Your task to perform on an android device: Open wifi settings Image 0: 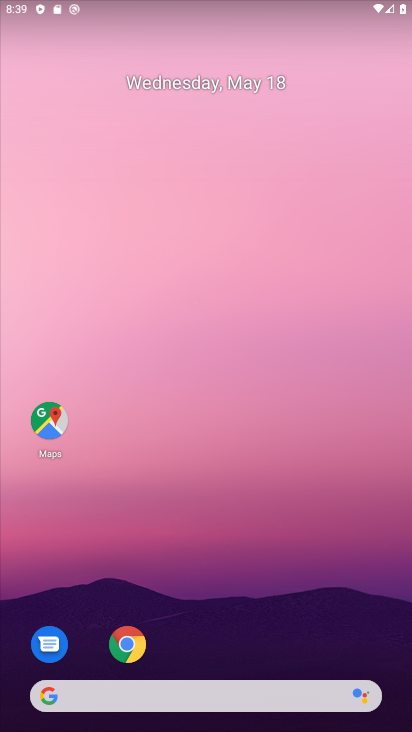
Step 0: drag from (205, 577) to (264, 25)
Your task to perform on an android device: Open wifi settings Image 1: 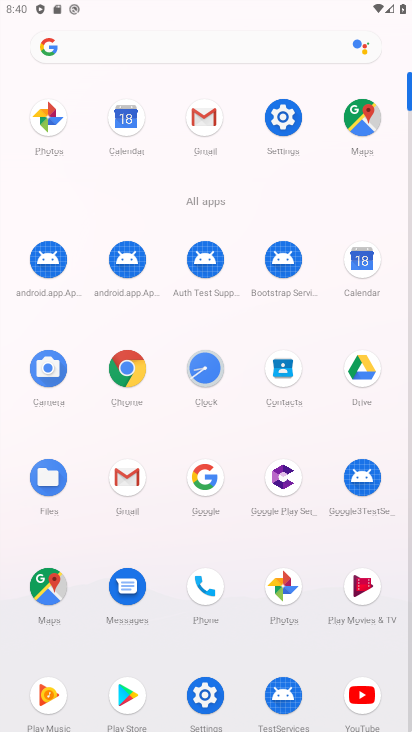
Step 1: click (285, 133)
Your task to perform on an android device: Open wifi settings Image 2: 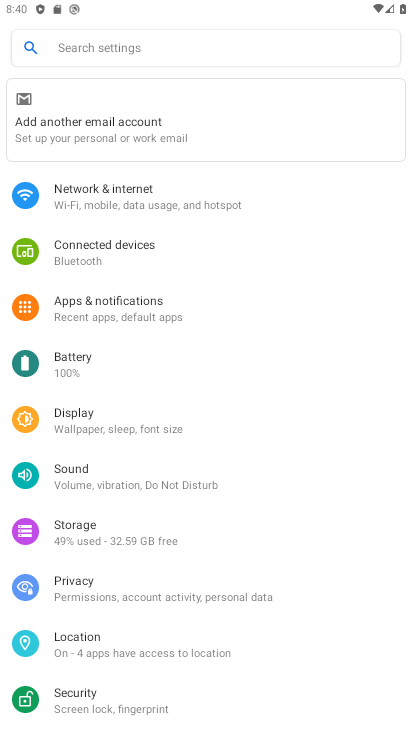
Step 2: click (179, 213)
Your task to perform on an android device: Open wifi settings Image 3: 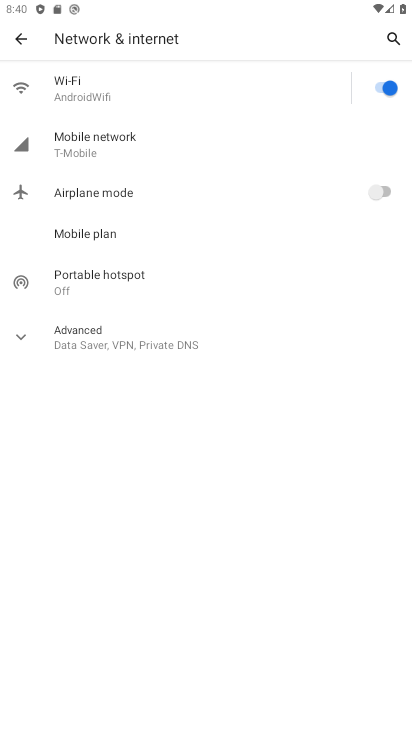
Step 3: click (202, 89)
Your task to perform on an android device: Open wifi settings Image 4: 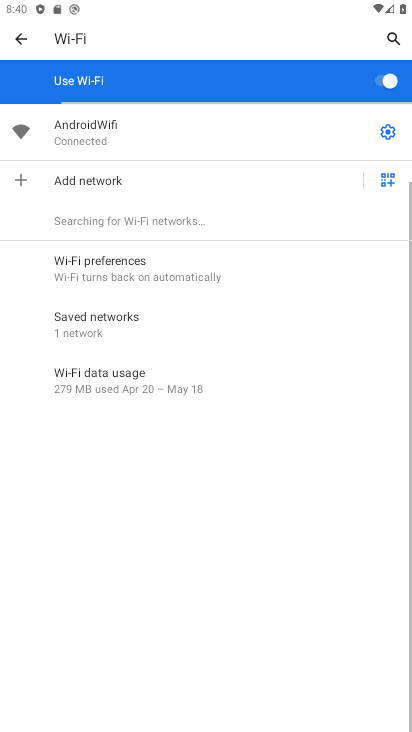
Step 4: task complete